Your task to perform on an android device: Open location settings Image 0: 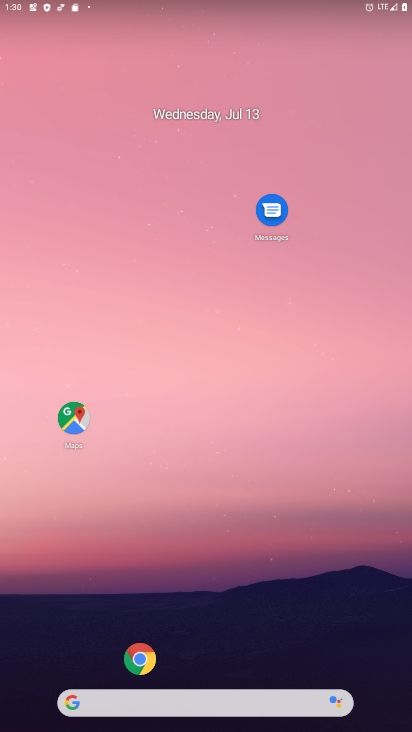
Step 0: drag from (37, 665) to (252, 168)
Your task to perform on an android device: Open location settings Image 1: 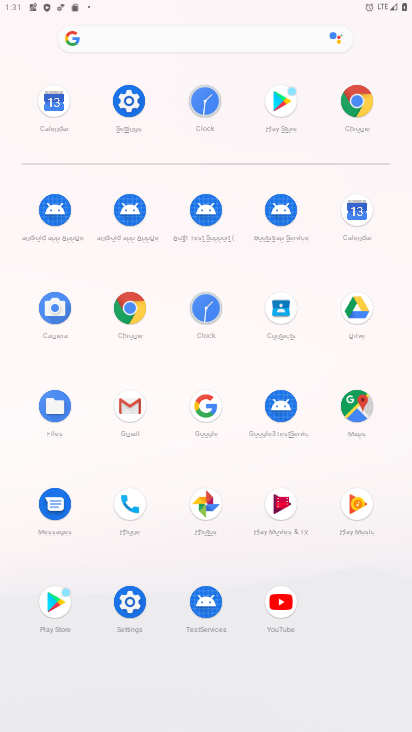
Step 1: click (115, 604)
Your task to perform on an android device: Open location settings Image 2: 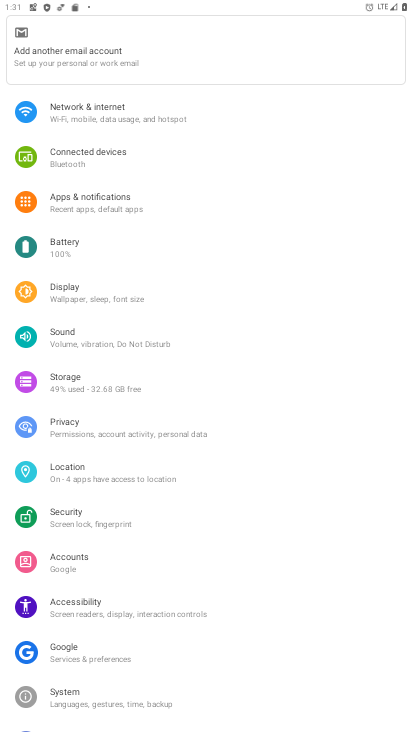
Step 2: click (81, 471)
Your task to perform on an android device: Open location settings Image 3: 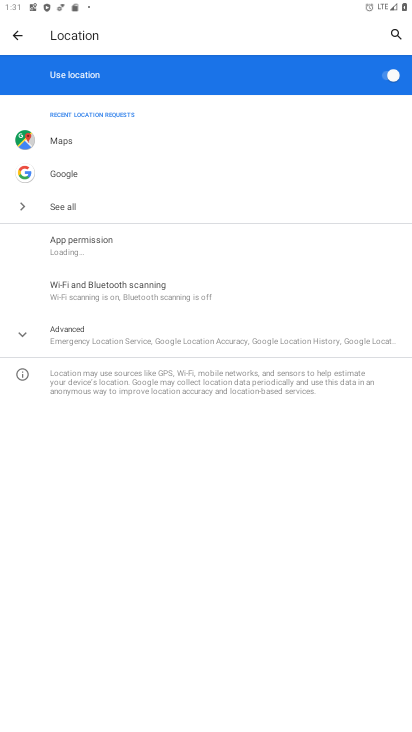
Step 3: click (82, 333)
Your task to perform on an android device: Open location settings Image 4: 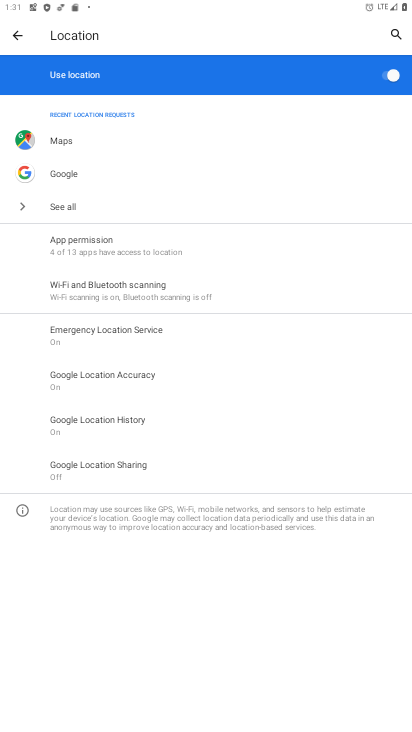
Step 4: task complete